Your task to perform on an android device: Go to Yahoo.com Image 0: 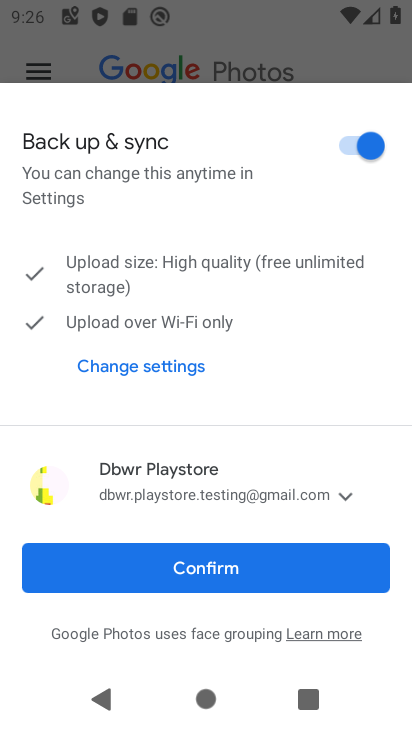
Step 0: press home button
Your task to perform on an android device: Go to Yahoo.com Image 1: 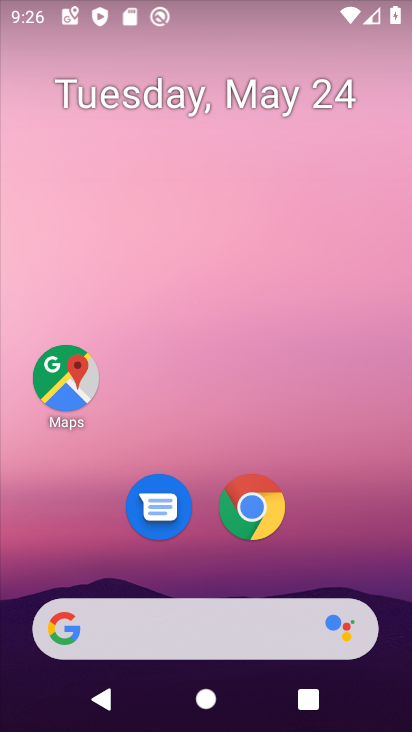
Step 1: click (276, 515)
Your task to perform on an android device: Go to Yahoo.com Image 2: 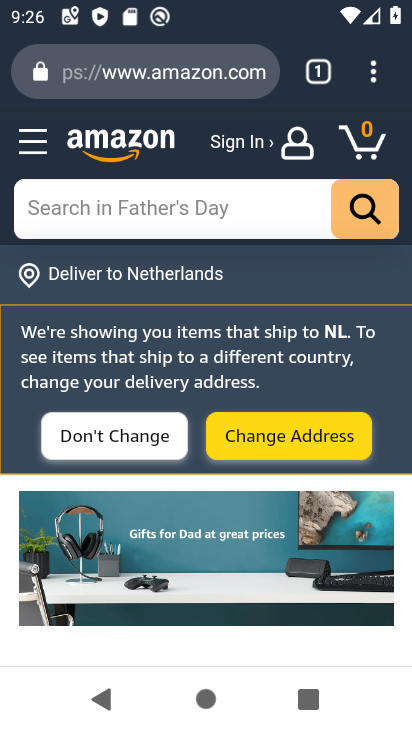
Step 2: drag from (386, 75) to (331, 135)
Your task to perform on an android device: Go to Yahoo.com Image 3: 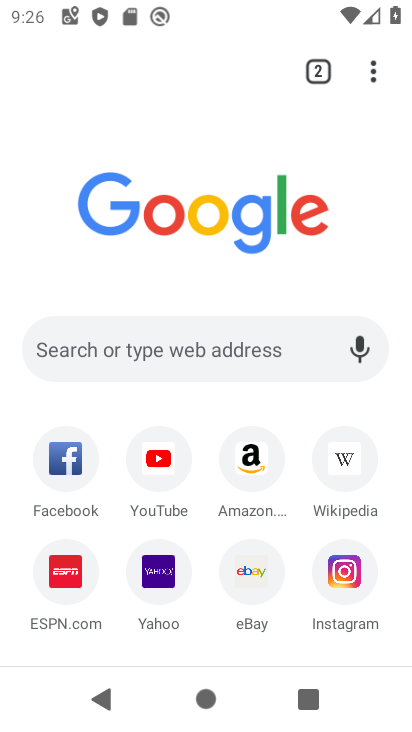
Step 3: click (169, 585)
Your task to perform on an android device: Go to Yahoo.com Image 4: 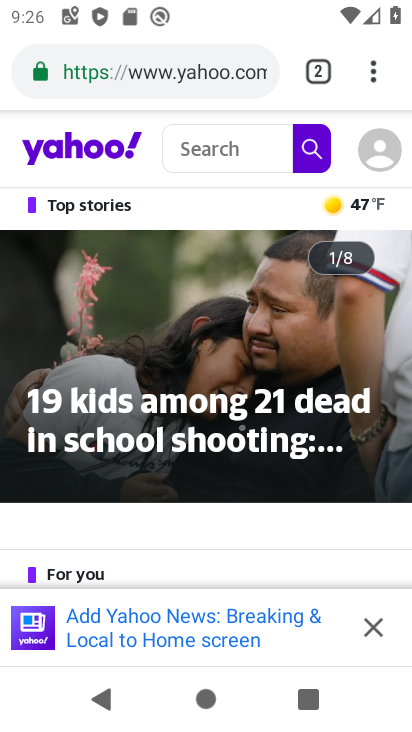
Step 4: task complete